Your task to perform on an android device: turn on airplane mode Image 0: 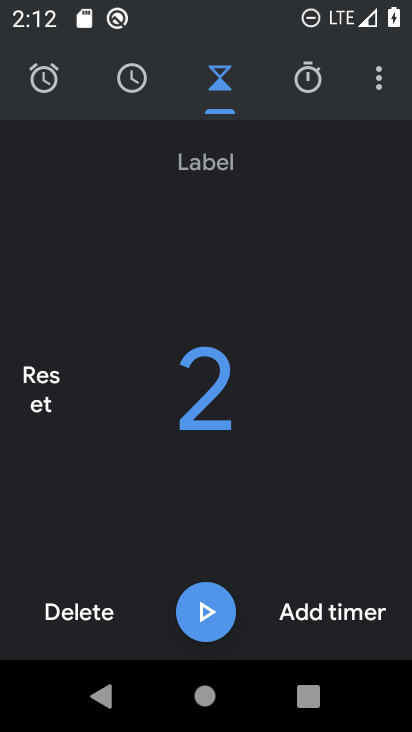
Step 0: press home button
Your task to perform on an android device: turn on airplane mode Image 1: 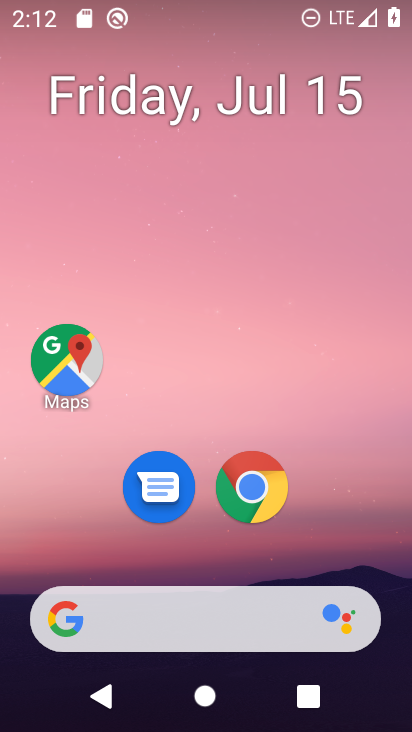
Step 1: drag from (203, 601) to (275, 218)
Your task to perform on an android device: turn on airplane mode Image 2: 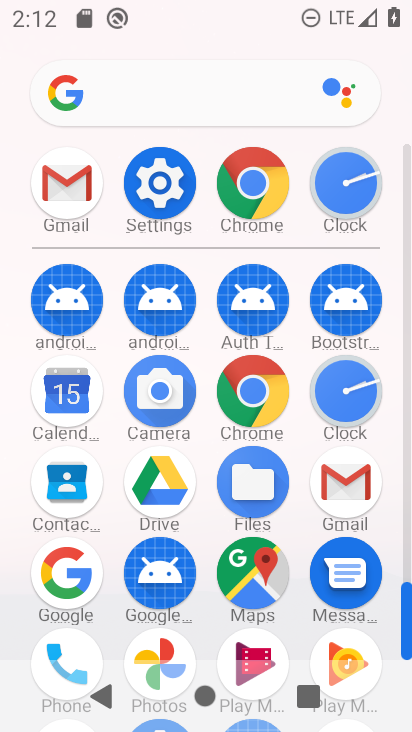
Step 2: click (173, 196)
Your task to perform on an android device: turn on airplane mode Image 3: 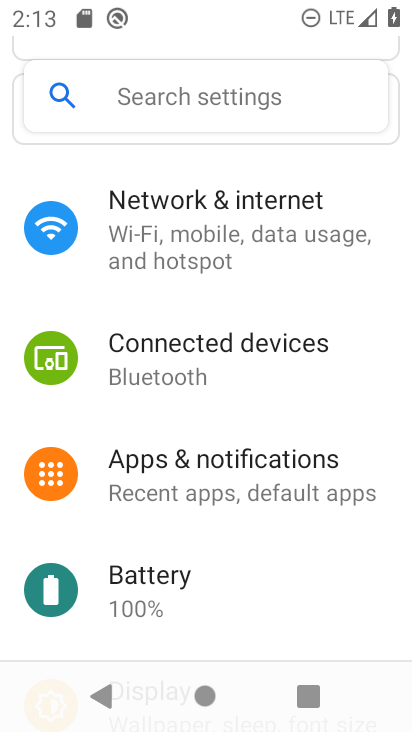
Step 3: click (235, 213)
Your task to perform on an android device: turn on airplane mode Image 4: 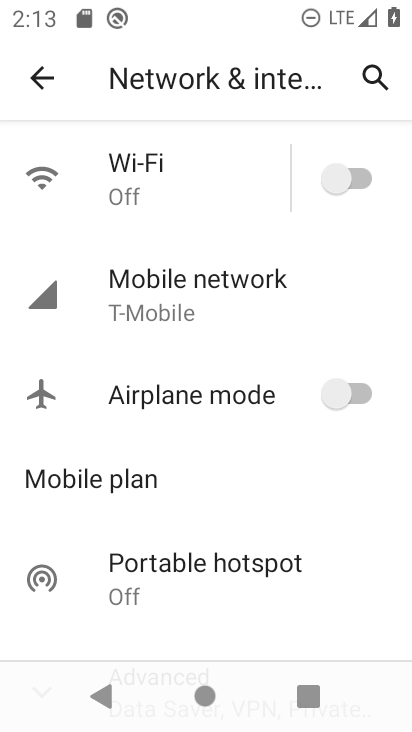
Step 4: click (291, 417)
Your task to perform on an android device: turn on airplane mode Image 5: 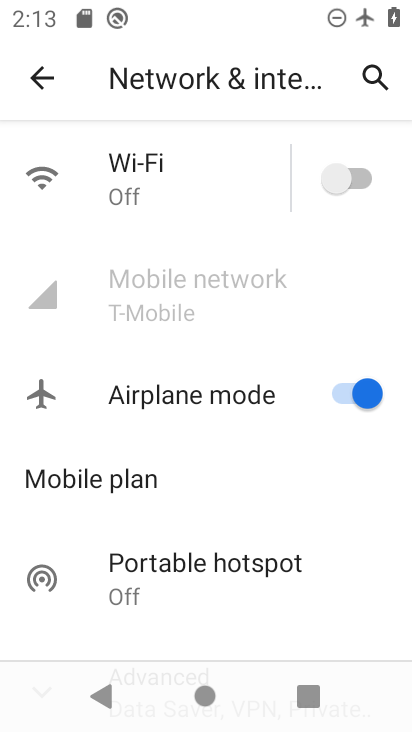
Step 5: task complete